Your task to perform on an android device: Show me popular games on the Play Store Image 0: 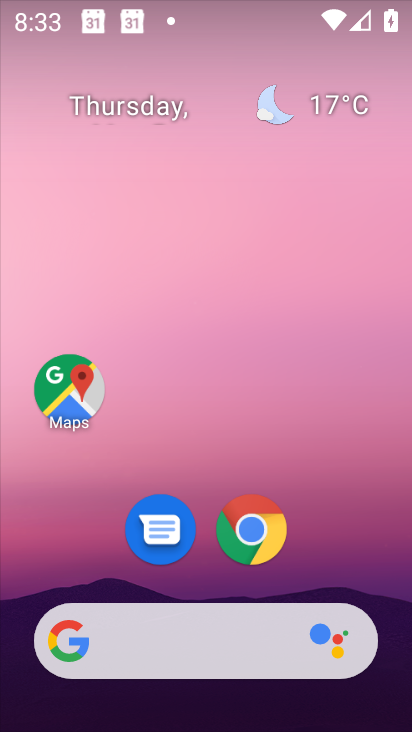
Step 0: drag from (361, 510) to (269, 22)
Your task to perform on an android device: Show me popular games on the Play Store Image 1: 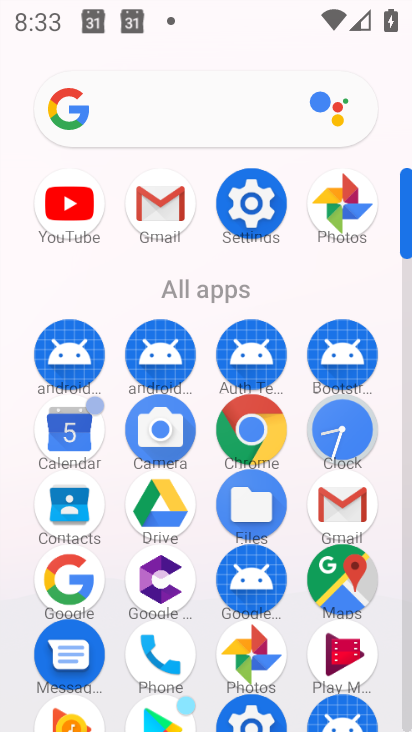
Step 1: drag from (209, 585) to (206, 288)
Your task to perform on an android device: Show me popular games on the Play Store Image 2: 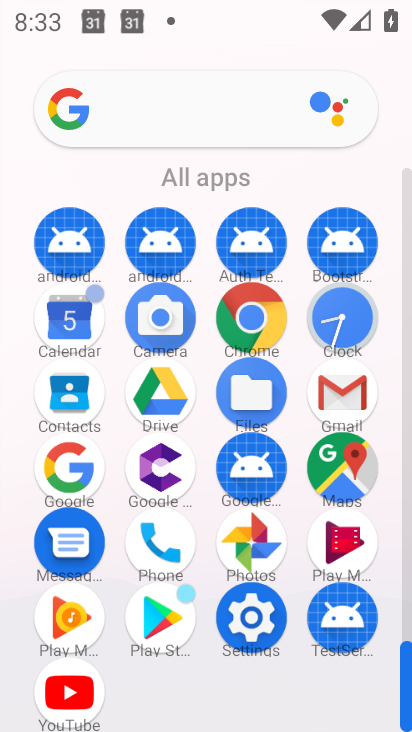
Step 2: click (154, 621)
Your task to perform on an android device: Show me popular games on the Play Store Image 3: 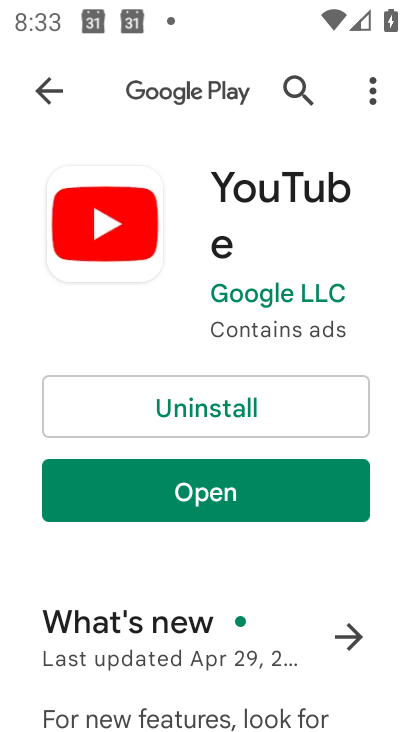
Step 3: click (43, 86)
Your task to perform on an android device: Show me popular games on the Play Store Image 4: 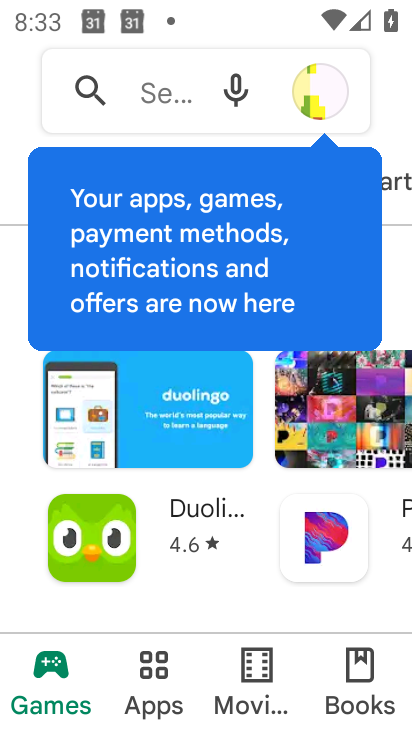
Step 4: click (220, 602)
Your task to perform on an android device: Show me popular games on the Play Store Image 5: 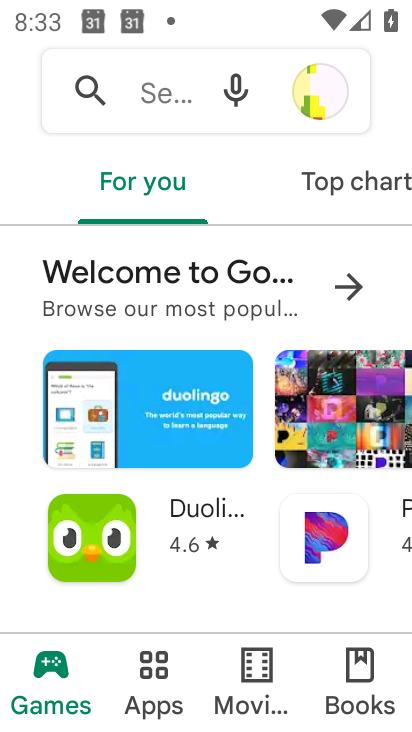
Step 5: click (58, 659)
Your task to perform on an android device: Show me popular games on the Play Store Image 6: 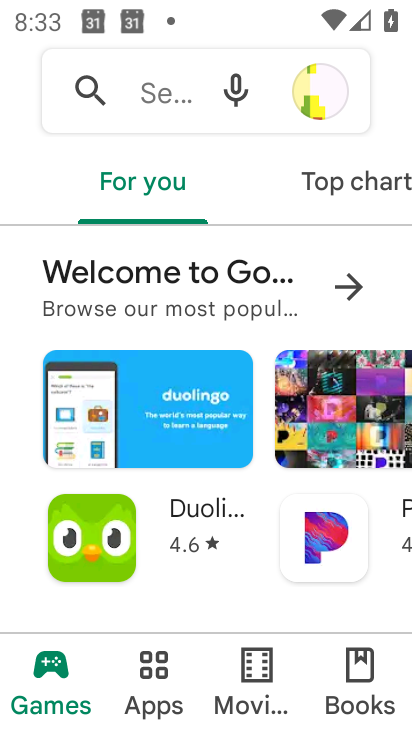
Step 6: task complete